Your task to perform on an android device: Search for Italian restaurants on Maps Image 0: 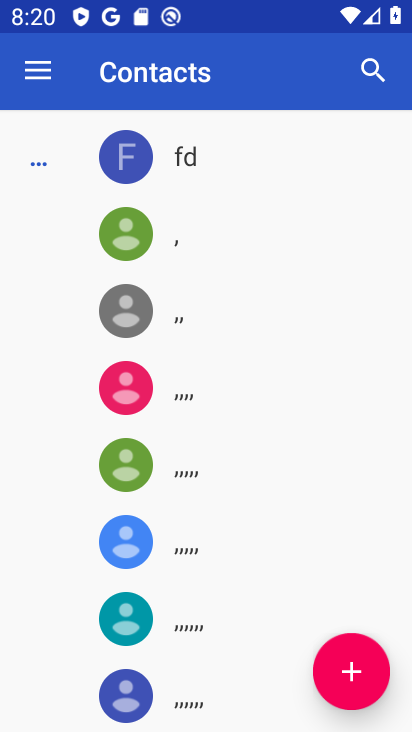
Step 0: press home button
Your task to perform on an android device: Search for Italian restaurants on Maps Image 1: 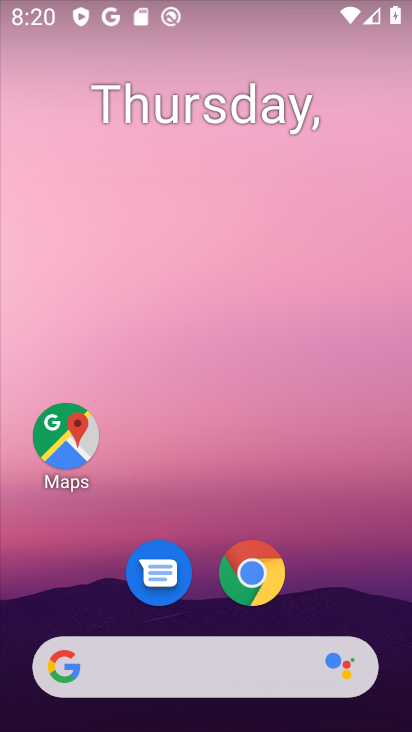
Step 1: drag from (379, 607) to (369, 174)
Your task to perform on an android device: Search for Italian restaurants on Maps Image 2: 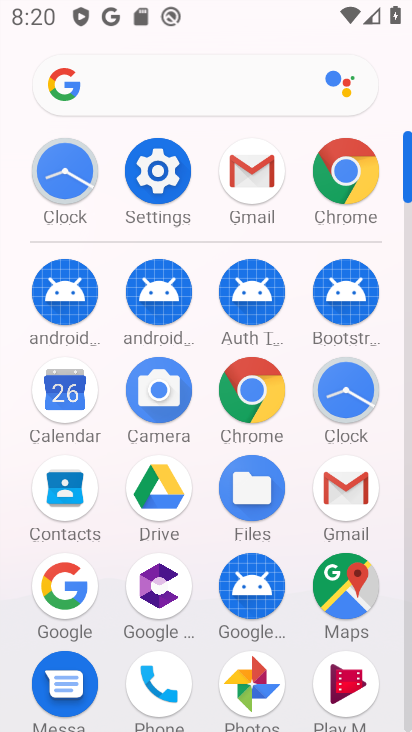
Step 2: click (328, 592)
Your task to perform on an android device: Search for Italian restaurants on Maps Image 3: 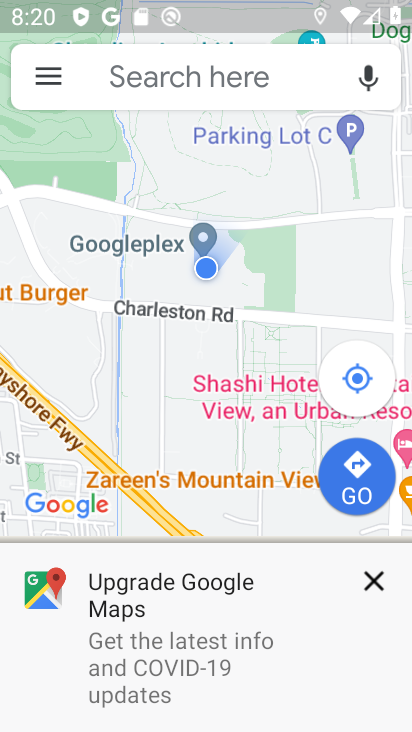
Step 3: click (192, 76)
Your task to perform on an android device: Search for Italian restaurants on Maps Image 4: 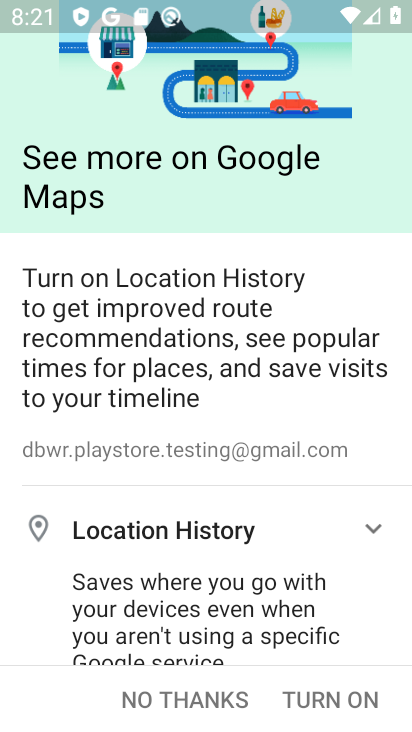
Step 4: click (229, 705)
Your task to perform on an android device: Search for Italian restaurants on Maps Image 5: 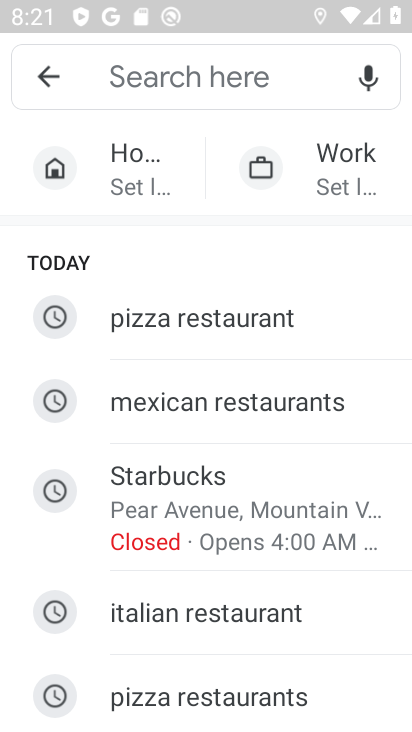
Step 5: click (211, 615)
Your task to perform on an android device: Search for Italian restaurants on Maps Image 6: 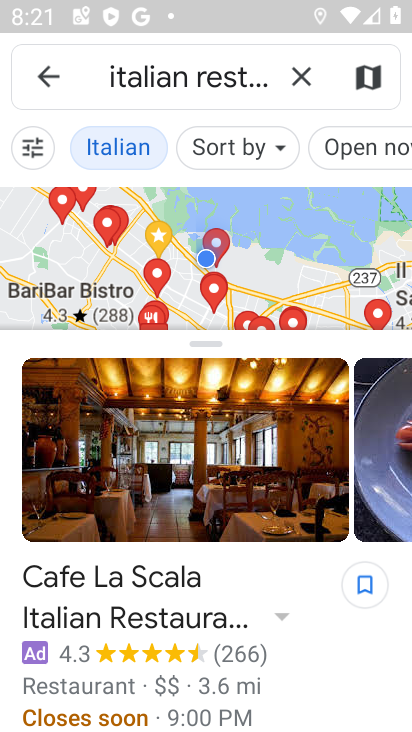
Step 6: task complete